Your task to perform on an android device: turn on translation in the chrome app Image 0: 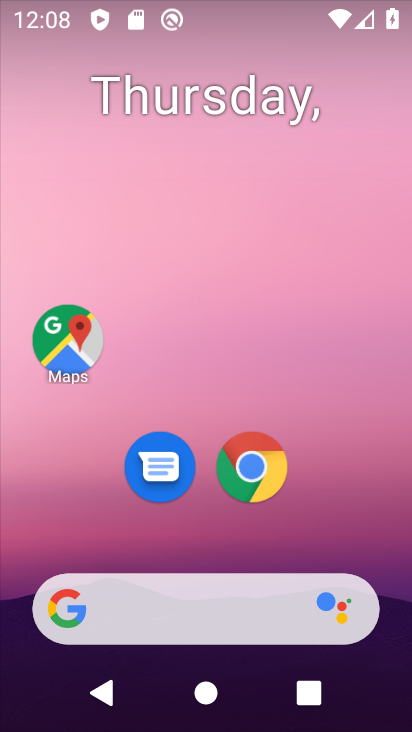
Step 0: click (233, 460)
Your task to perform on an android device: turn on translation in the chrome app Image 1: 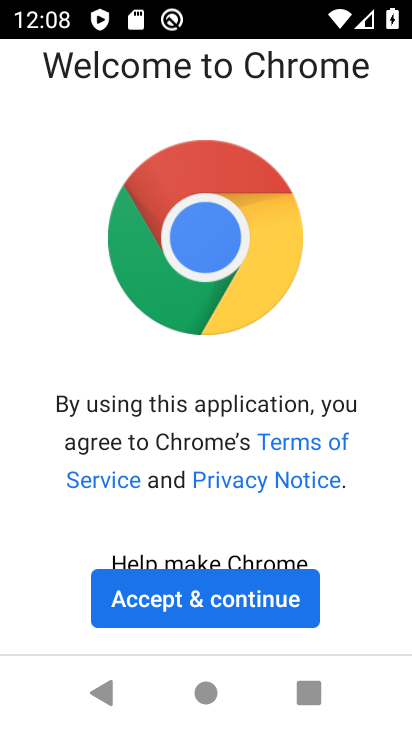
Step 1: click (248, 599)
Your task to perform on an android device: turn on translation in the chrome app Image 2: 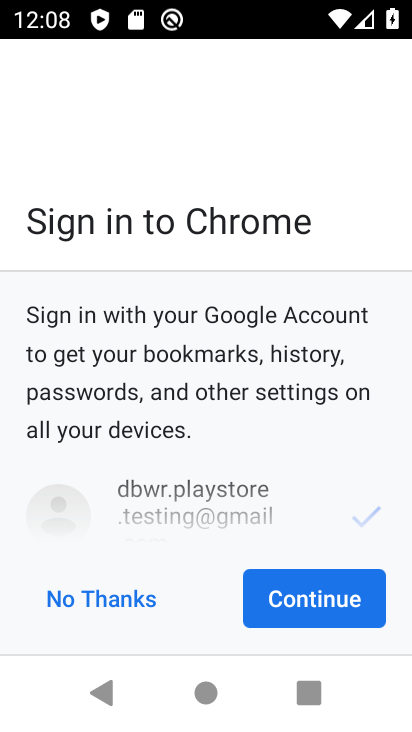
Step 2: click (289, 599)
Your task to perform on an android device: turn on translation in the chrome app Image 3: 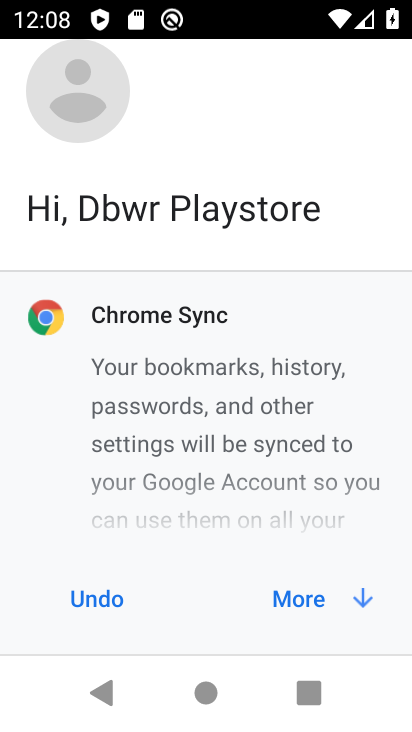
Step 3: click (288, 606)
Your task to perform on an android device: turn on translation in the chrome app Image 4: 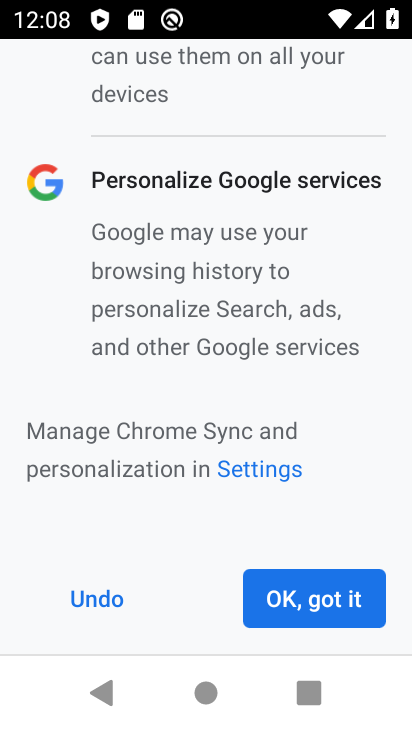
Step 4: click (287, 595)
Your task to perform on an android device: turn on translation in the chrome app Image 5: 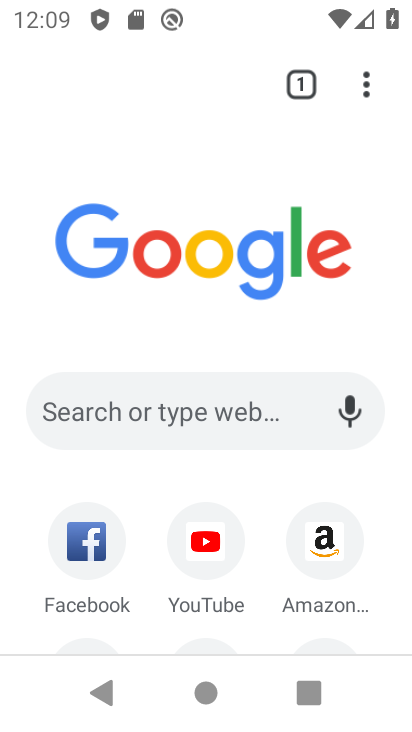
Step 5: drag from (261, 608) to (248, 406)
Your task to perform on an android device: turn on translation in the chrome app Image 6: 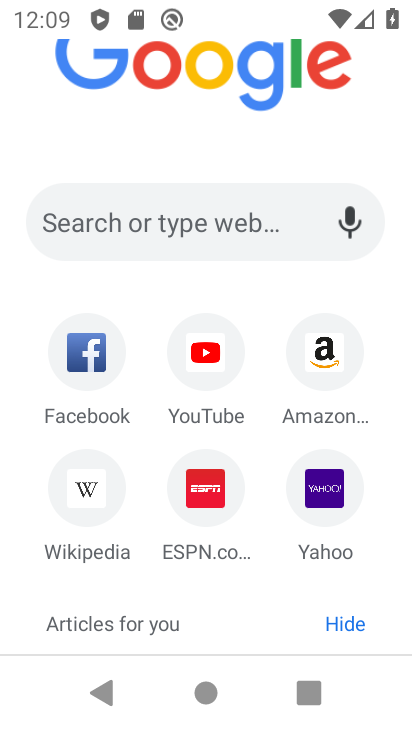
Step 6: drag from (305, 142) to (291, 384)
Your task to perform on an android device: turn on translation in the chrome app Image 7: 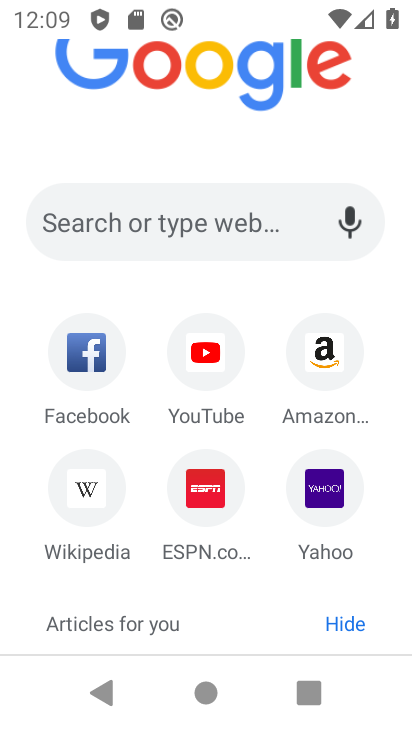
Step 7: drag from (356, 104) to (350, 358)
Your task to perform on an android device: turn on translation in the chrome app Image 8: 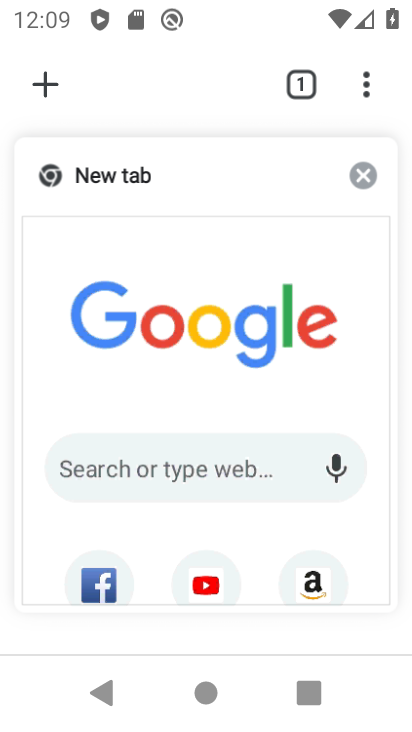
Step 8: click (278, 177)
Your task to perform on an android device: turn on translation in the chrome app Image 9: 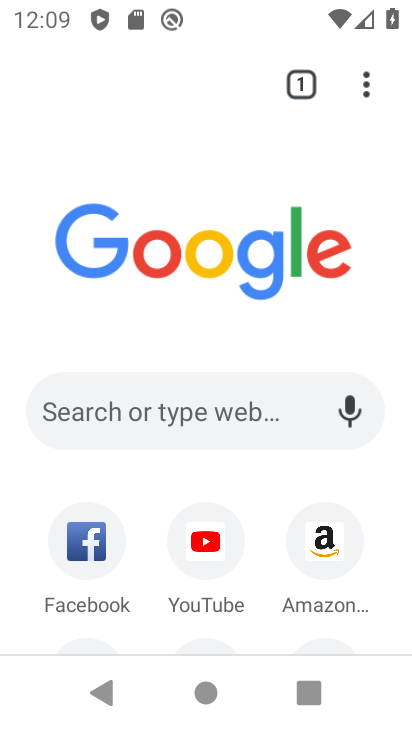
Step 9: click (360, 84)
Your task to perform on an android device: turn on translation in the chrome app Image 10: 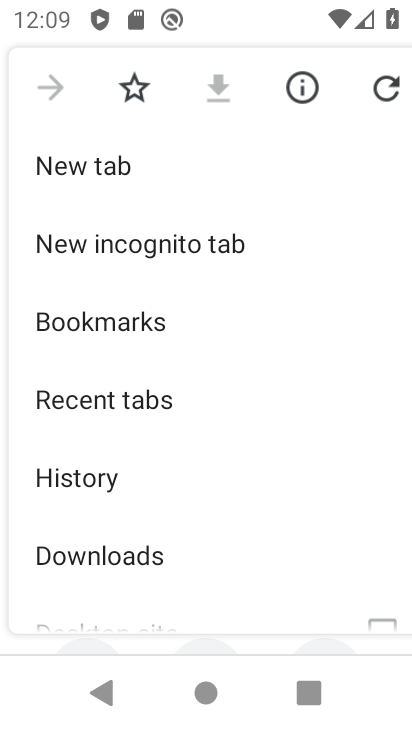
Step 10: drag from (273, 543) to (236, 343)
Your task to perform on an android device: turn on translation in the chrome app Image 11: 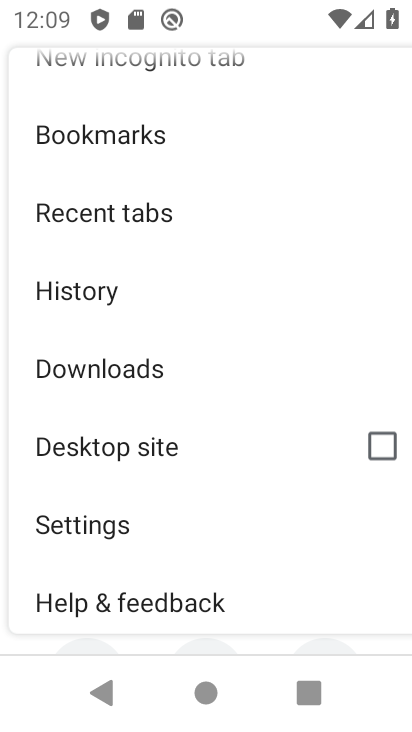
Step 11: drag from (284, 565) to (292, 327)
Your task to perform on an android device: turn on translation in the chrome app Image 12: 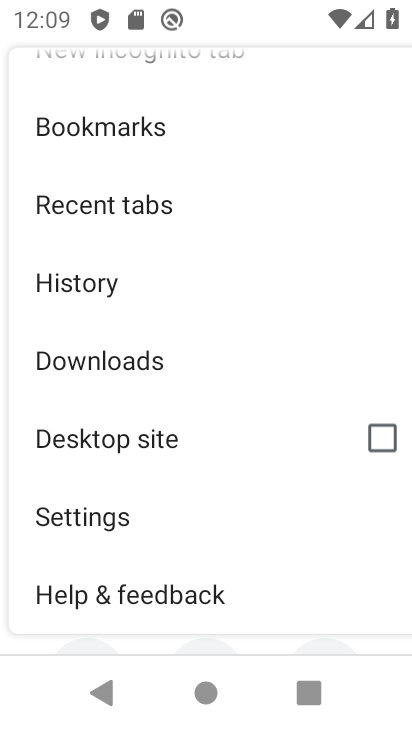
Step 12: click (76, 521)
Your task to perform on an android device: turn on translation in the chrome app Image 13: 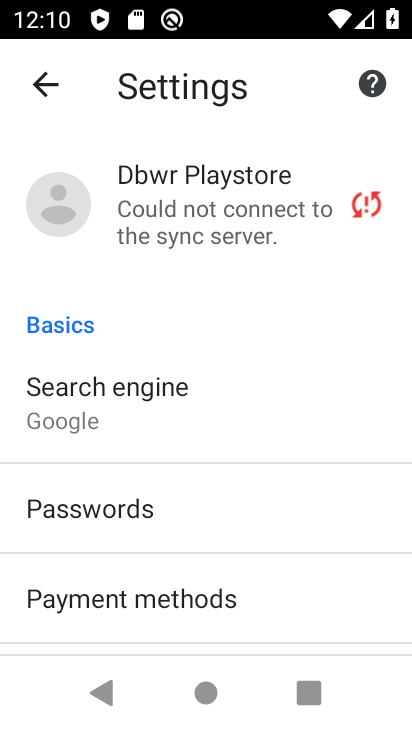
Step 13: drag from (268, 600) to (264, 327)
Your task to perform on an android device: turn on translation in the chrome app Image 14: 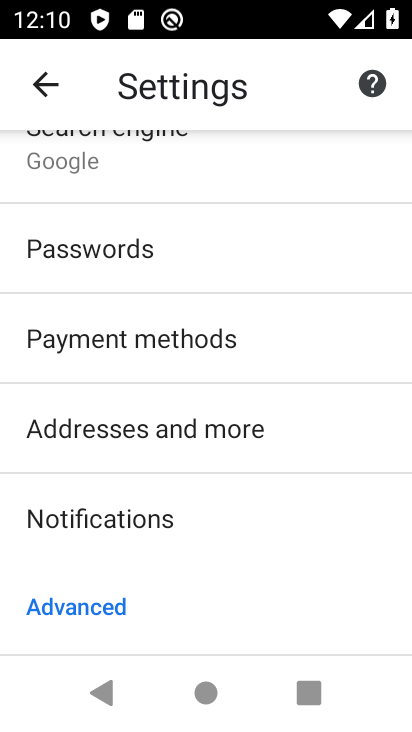
Step 14: drag from (303, 529) to (204, 187)
Your task to perform on an android device: turn on translation in the chrome app Image 15: 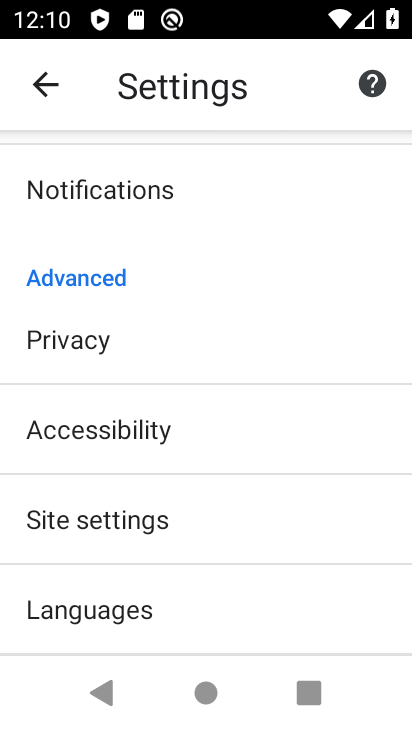
Step 15: click (155, 631)
Your task to perform on an android device: turn on translation in the chrome app Image 16: 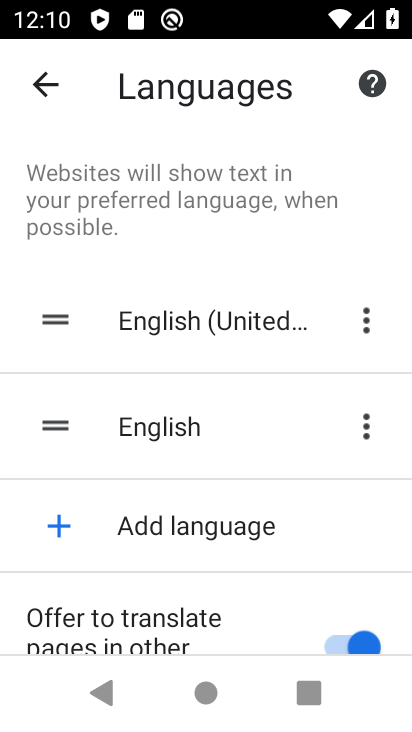
Step 16: drag from (156, 566) to (137, 292)
Your task to perform on an android device: turn on translation in the chrome app Image 17: 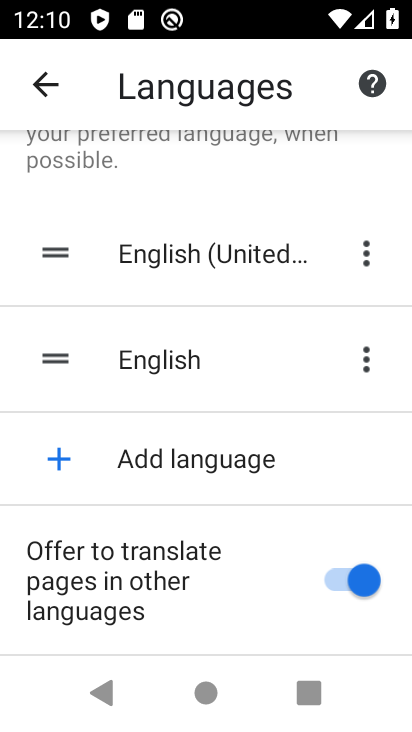
Step 17: drag from (78, 459) to (56, 225)
Your task to perform on an android device: turn on translation in the chrome app Image 18: 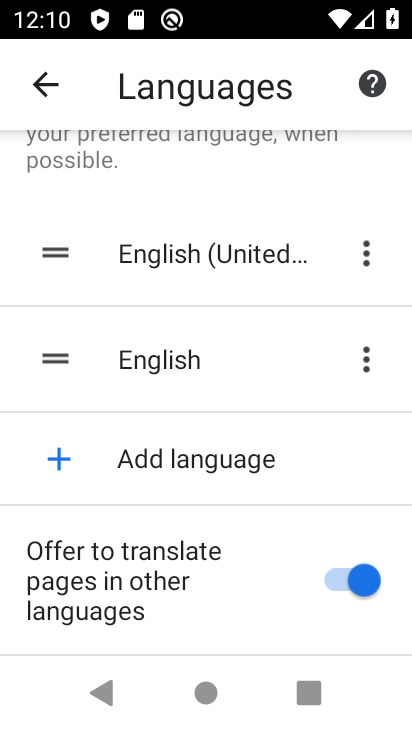
Step 18: drag from (110, 601) to (67, 322)
Your task to perform on an android device: turn on translation in the chrome app Image 19: 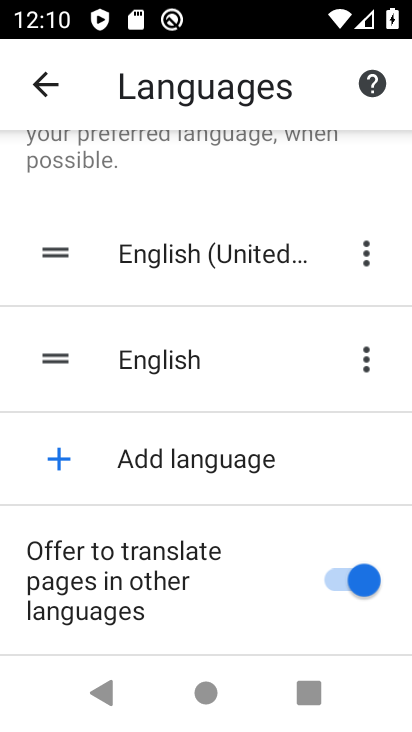
Step 19: drag from (326, 602) to (60, 340)
Your task to perform on an android device: turn on translation in the chrome app Image 20: 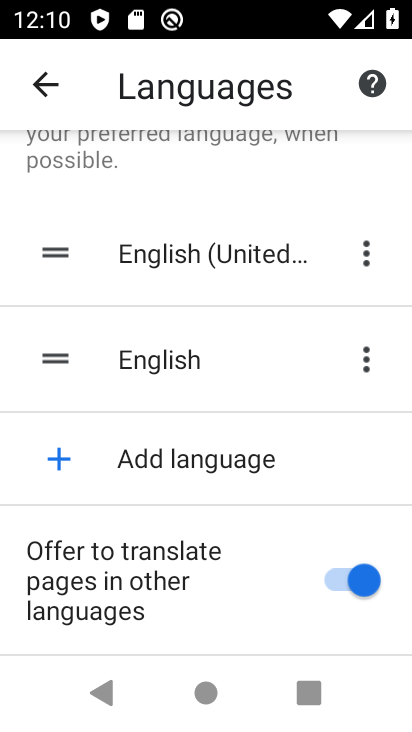
Step 20: drag from (134, 570) to (142, 133)
Your task to perform on an android device: turn on translation in the chrome app Image 21: 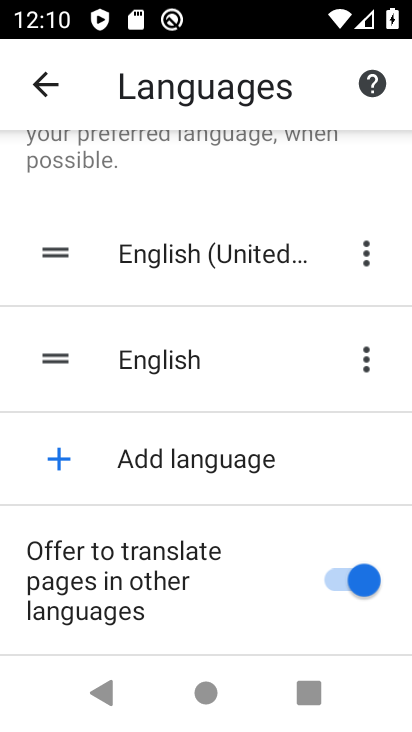
Step 21: click (328, 587)
Your task to perform on an android device: turn on translation in the chrome app Image 22: 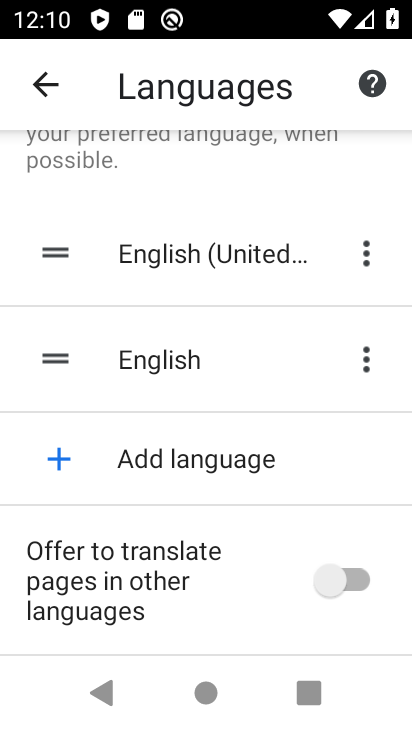
Step 22: click (359, 573)
Your task to perform on an android device: turn on translation in the chrome app Image 23: 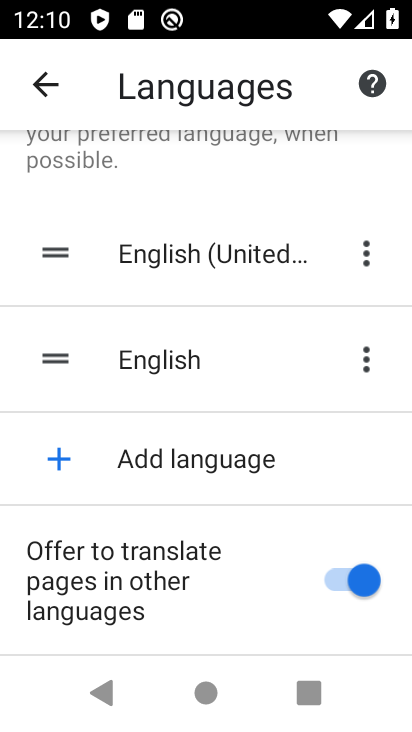
Step 23: task complete